Your task to perform on an android device: toggle show notifications on the lock screen Image 0: 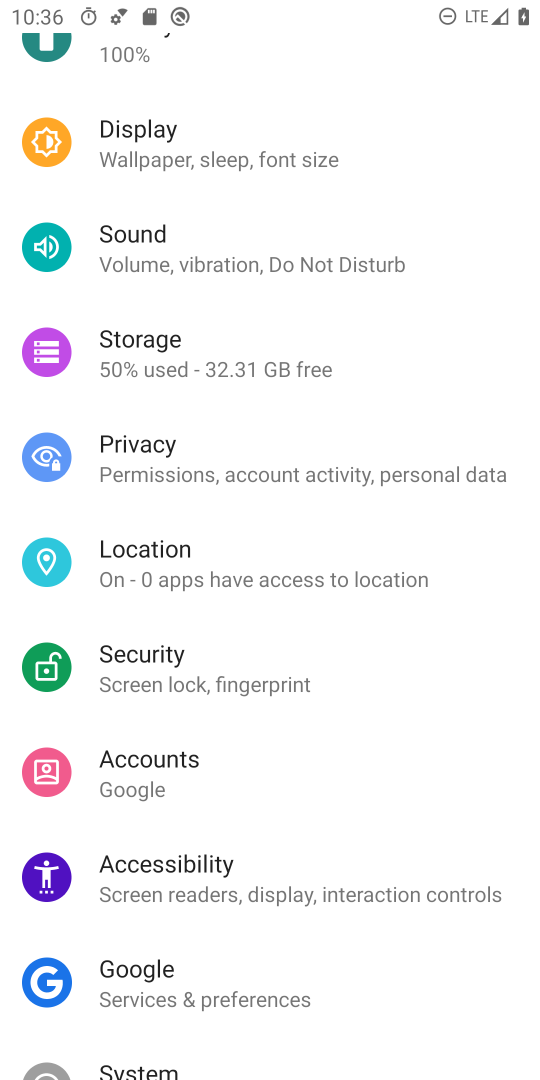
Step 0: press home button
Your task to perform on an android device: toggle show notifications on the lock screen Image 1: 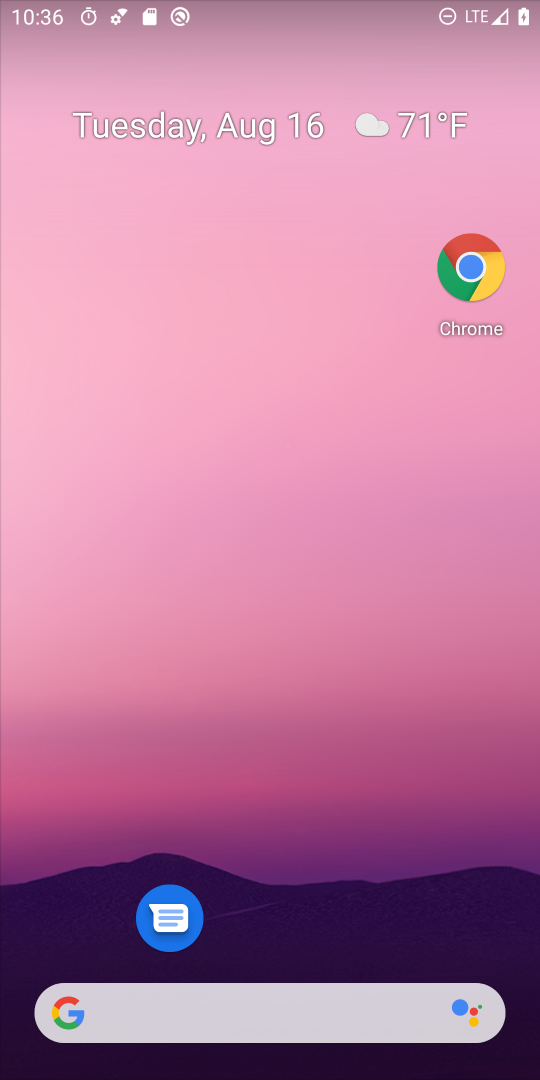
Step 1: drag from (350, 993) to (288, 195)
Your task to perform on an android device: toggle show notifications on the lock screen Image 2: 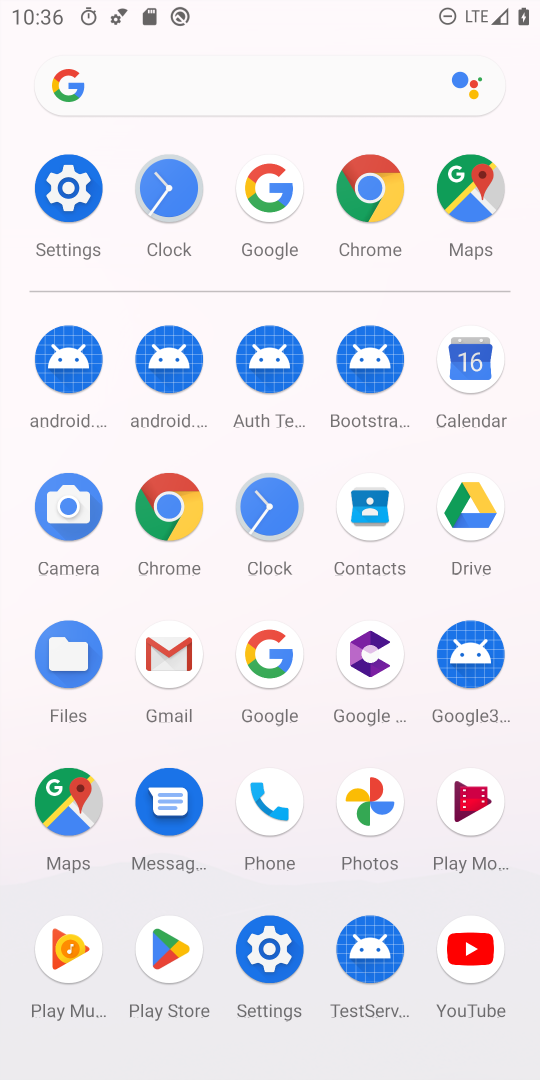
Step 2: click (37, 201)
Your task to perform on an android device: toggle show notifications on the lock screen Image 3: 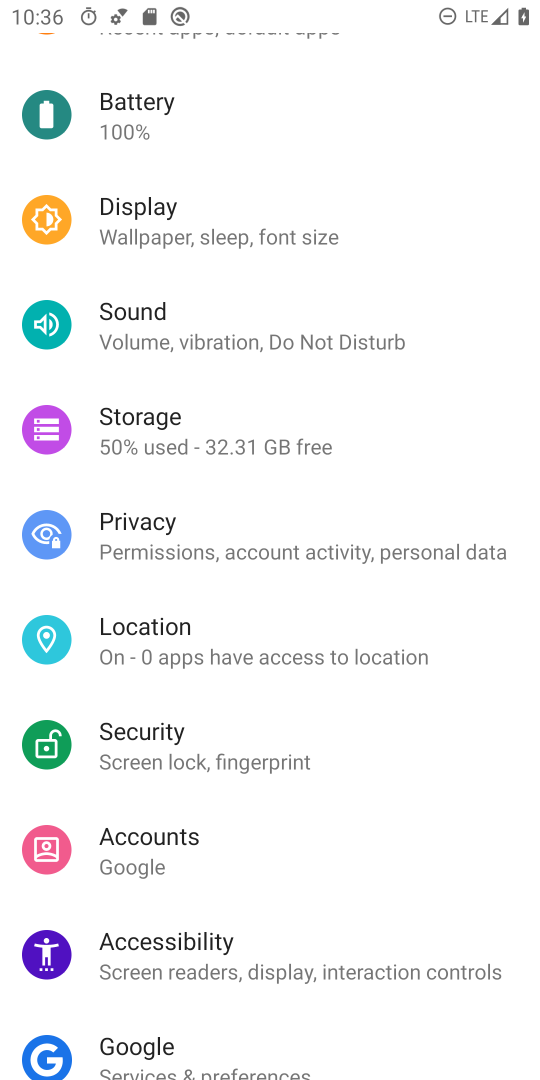
Step 3: drag from (259, 329) to (256, 976)
Your task to perform on an android device: toggle show notifications on the lock screen Image 4: 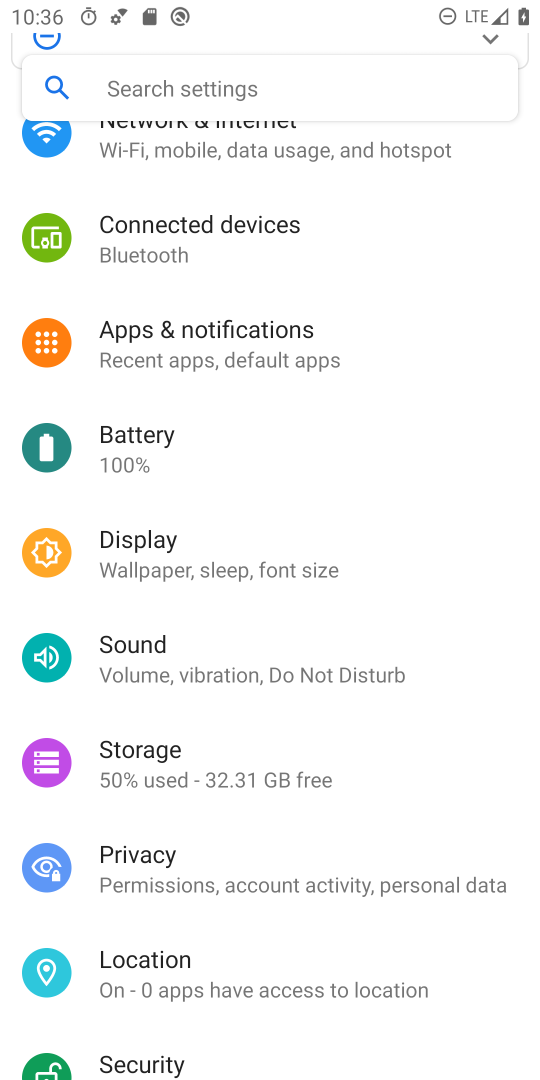
Step 4: click (233, 348)
Your task to perform on an android device: toggle show notifications on the lock screen Image 5: 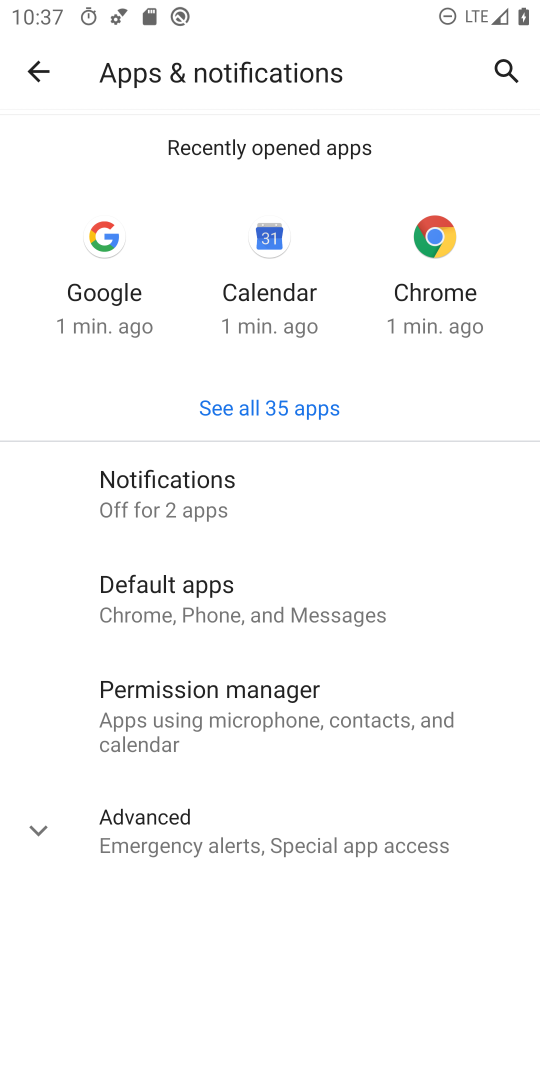
Step 5: click (218, 507)
Your task to perform on an android device: toggle show notifications on the lock screen Image 6: 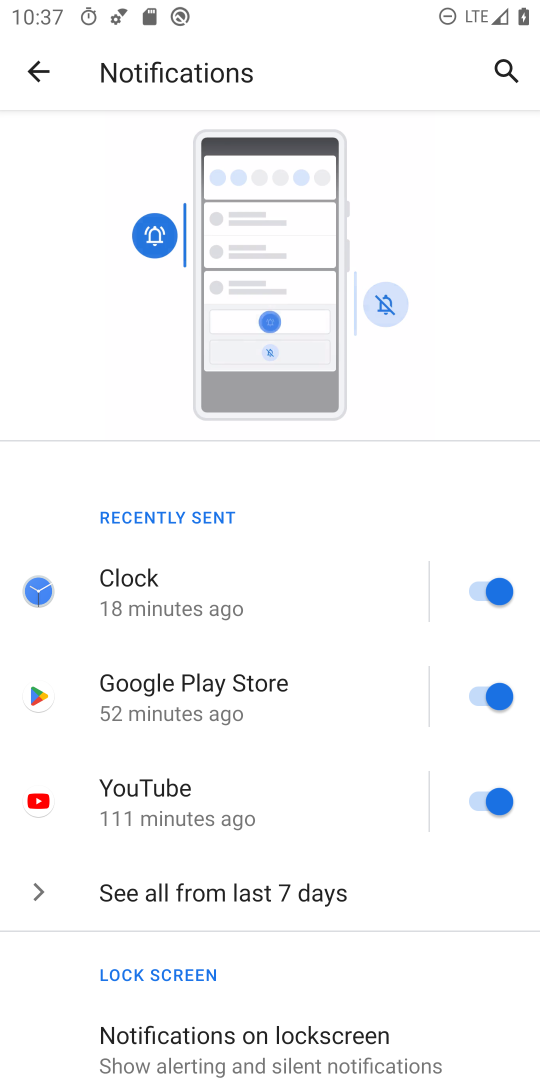
Step 6: click (469, 591)
Your task to perform on an android device: toggle show notifications on the lock screen Image 7: 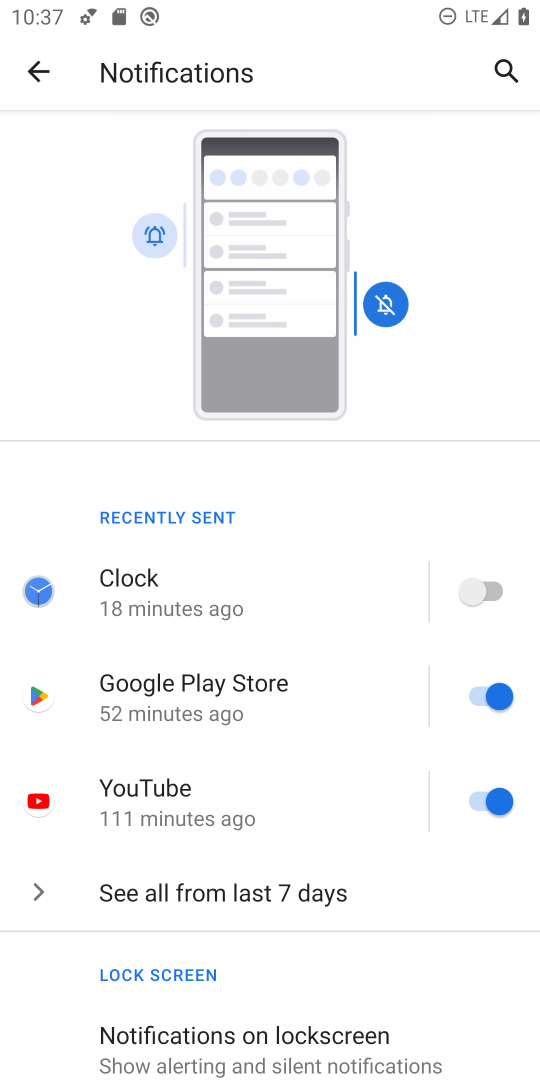
Step 7: task complete